Your task to perform on an android device: Open Google Image 0: 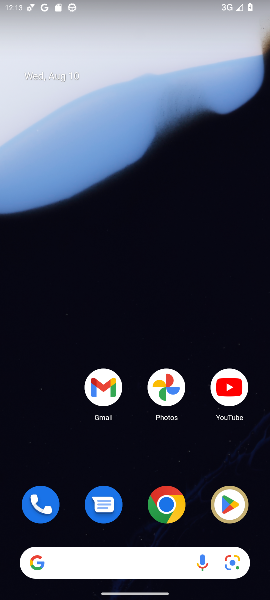
Step 0: press home button
Your task to perform on an android device: Open Google Image 1: 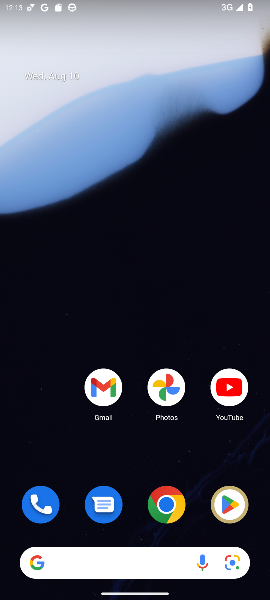
Step 1: drag from (139, 518) to (165, 163)
Your task to perform on an android device: Open Google Image 2: 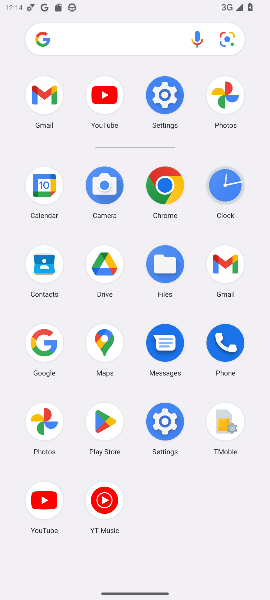
Step 2: click (45, 346)
Your task to perform on an android device: Open Google Image 3: 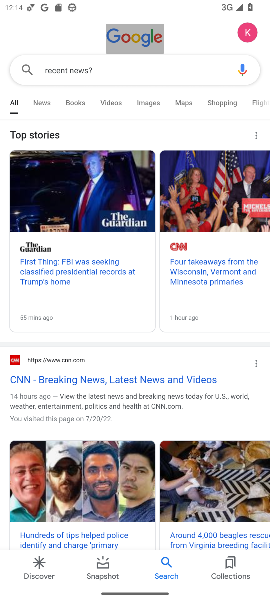
Step 3: task complete